Your task to perform on an android device: What's the weather today? Image 0: 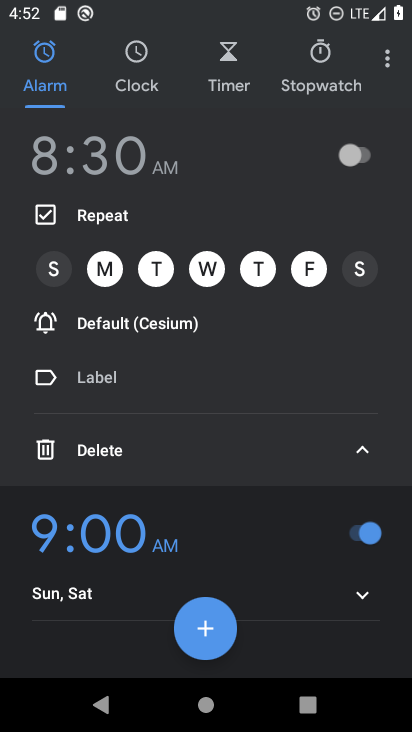
Step 0: press home button
Your task to perform on an android device: What's the weather today? Image 1: 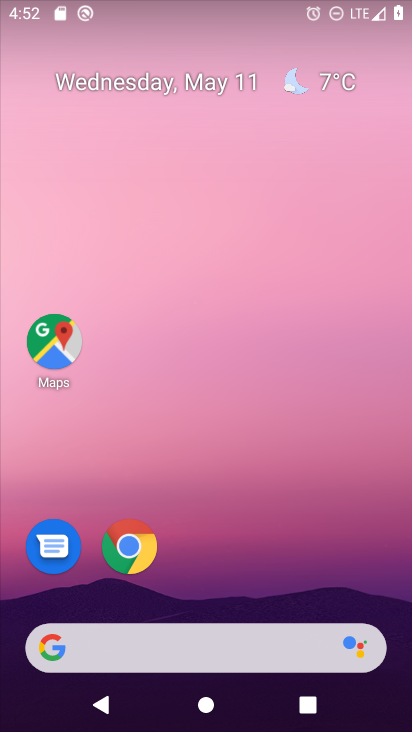
Step 1: drag from (327, 592) to (318, 91)
Your task to perform on an android device: What's the weather today? Image 2: 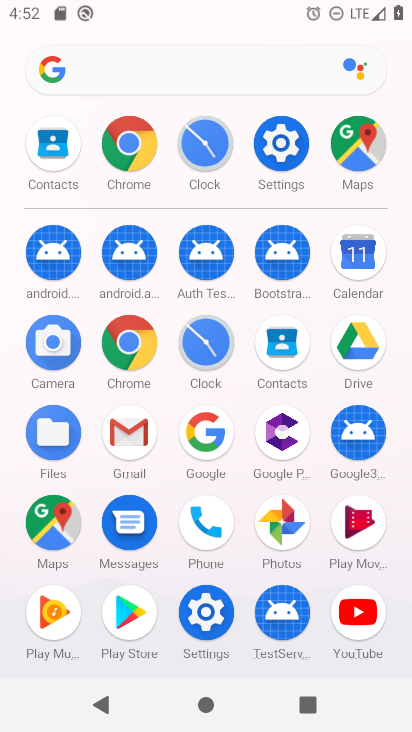
Step 2: click (134, 351)
Your task to perform on an android device: What's the weather today? Image 3: 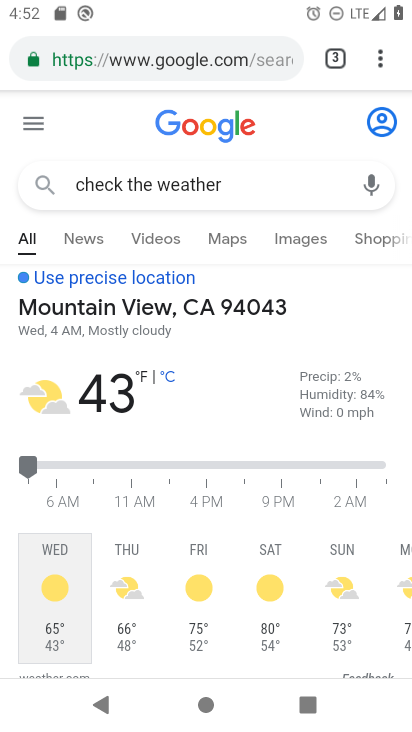
Step 3: task complete